Your task to perform on an android device: turn on improve location accuracy Image 0: 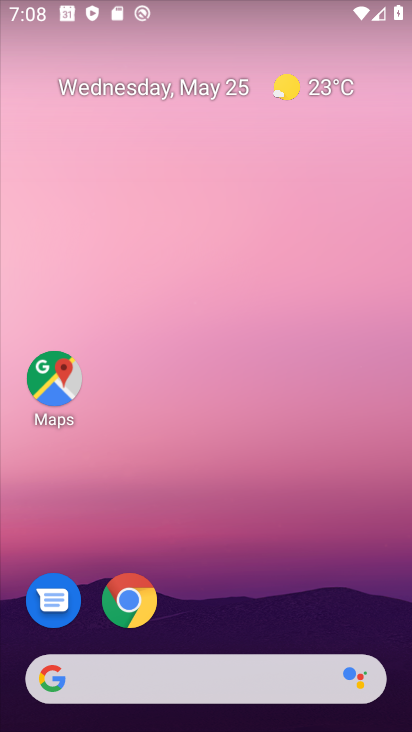
Step 0: drag from (230, 585) to (247, 214)
Your task to perform on an android device: turn on improve location accuracy Image 1: 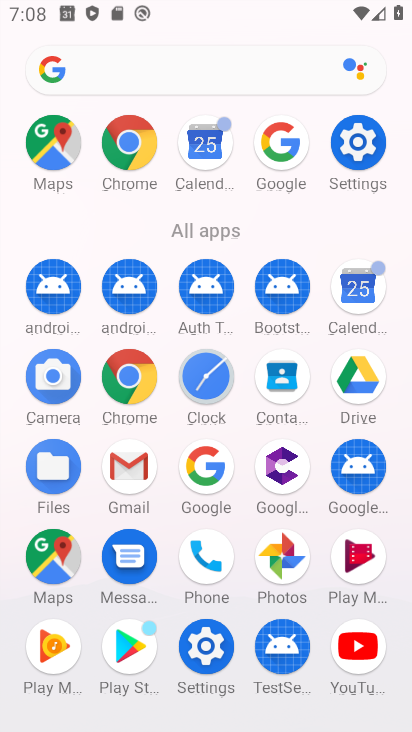
Step 1: click (360, 144)
Your task to perform on an android device: turn on improve location accuracy Image 2: 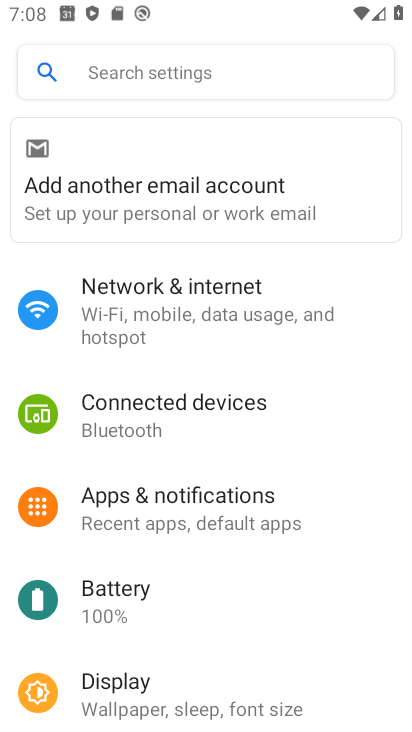
Step 2: drag from (144, 536) to (196, 445)
Your task to perform on an android device: turn on improve location accuracy Image 3: 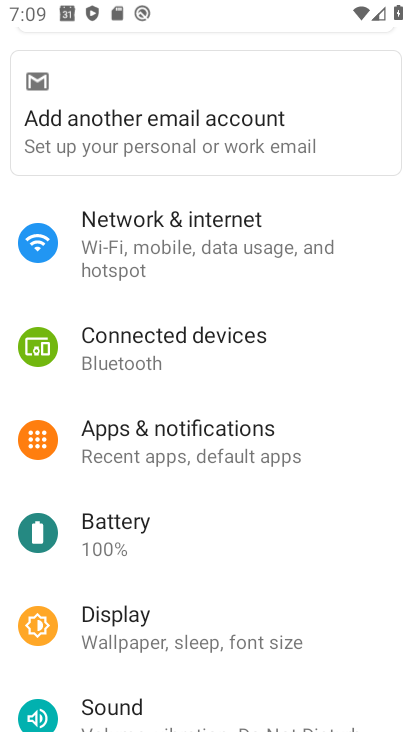
Step 3: drag from (146, 575) to (210, 482)
Your task to perform on an android device: turn on improve location accuracy Image 4: 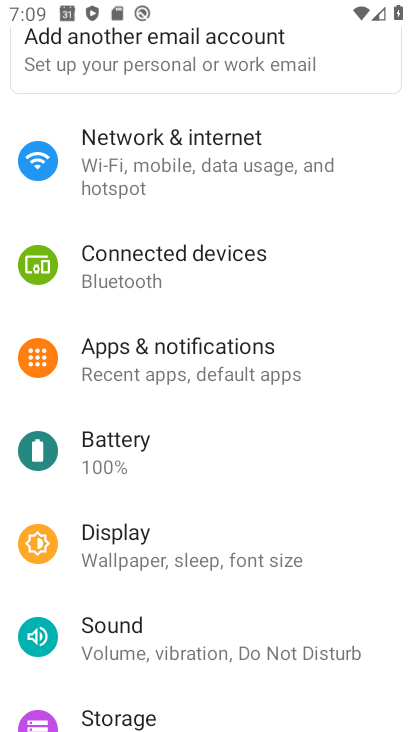
Step 4: drag from (142, 583) to (203, 499)
Your task to perform on an android device: turn on improve location accuracy Image 5: 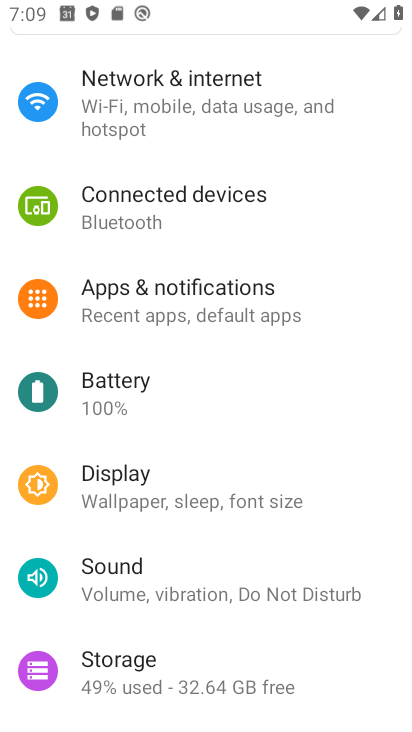
Step 5: drag from (112, 620) to (197, 522)
Your task to perform on an android device: turn on improve location accuracy Image 6: 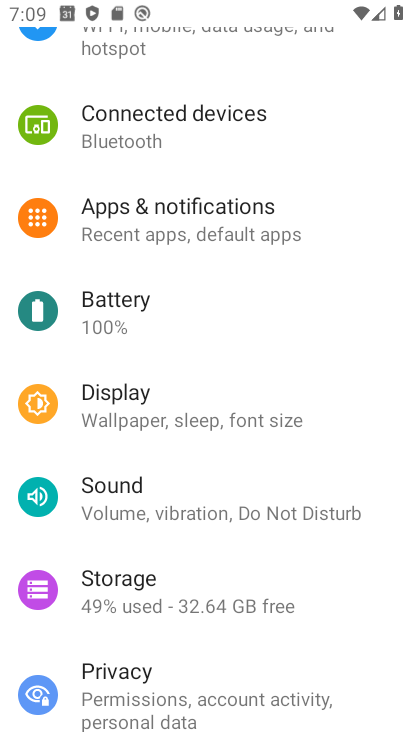
Step 6: drag from (124, 556) to (199, 475)
Your task to perform on an android device: turn on improve location accuracy Image 7: 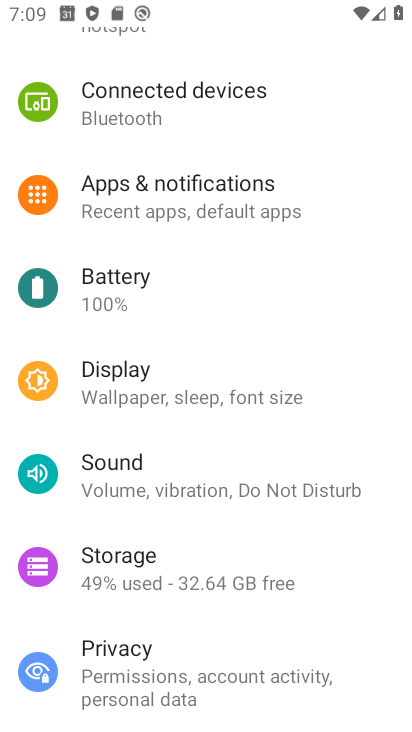
Step 7: drag from (109, 607) to (209, 498)
Your task to perform on an android device: turn on improve location accuracy Image 8: 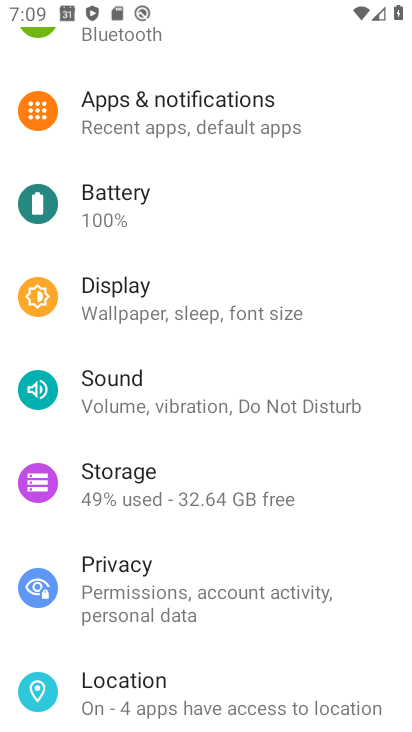
Step 8: drag from (73, 639) to (157, 506)
Your task to perform on an android device: turn on improve location accuracy Image 9: 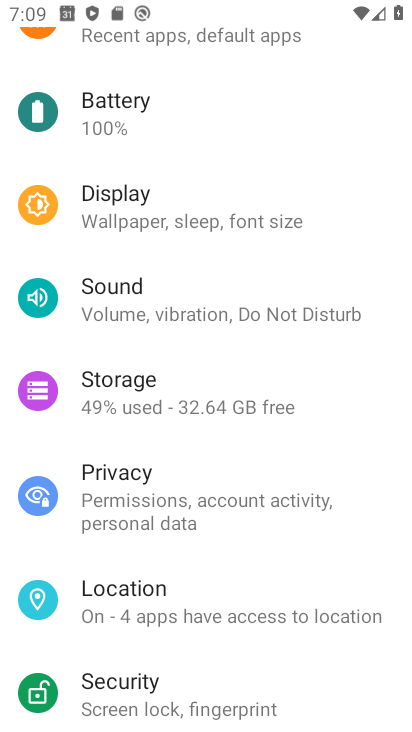
Step 9: click (116, 592)
Your task to perform on an android device: turn on improve location accuracy Image 10: 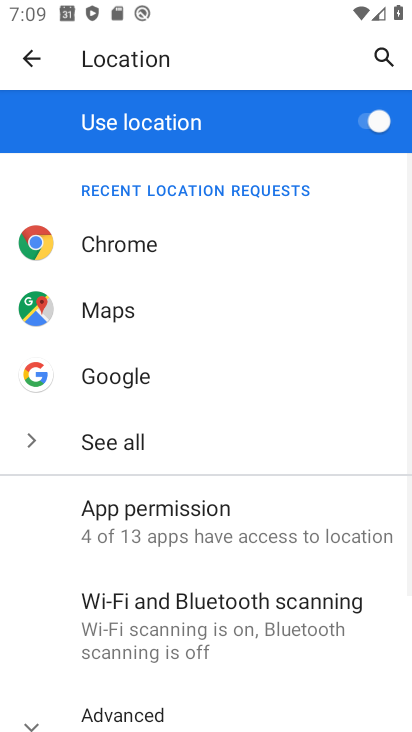
Step 10: drag from (188, 555) to (258, 440)
Your task to perform on an android device: turn on improve location accuracy Image 11: 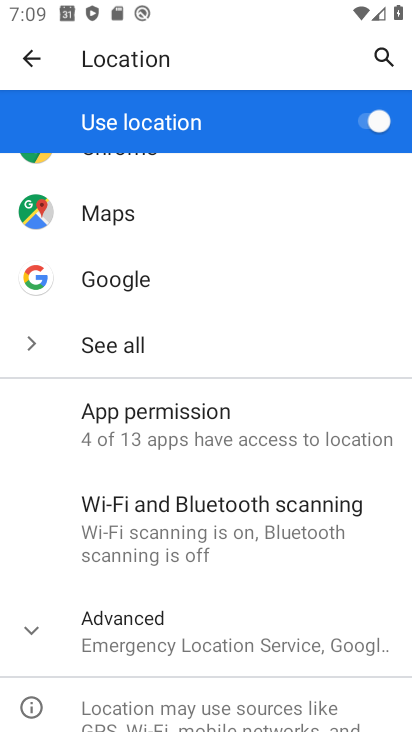
Step 11: click (191, 638)
Your task to perform on an android device: turn on improve location accuracy Image 12: 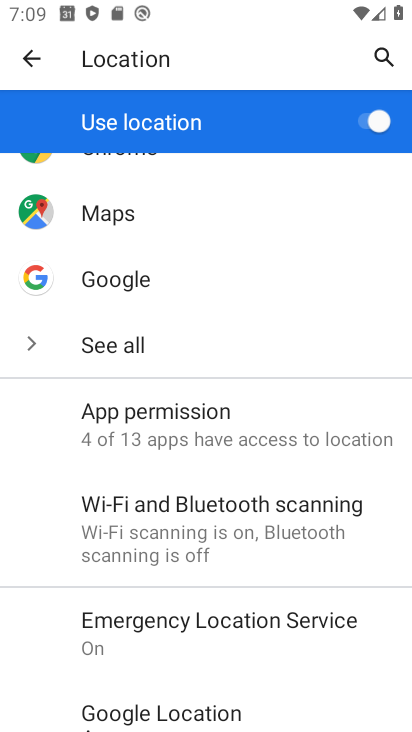
Step 12: drag from (173, 669) to (202, 552)
Your task to perform on an android device: turn on improve location accuracy Image 13: 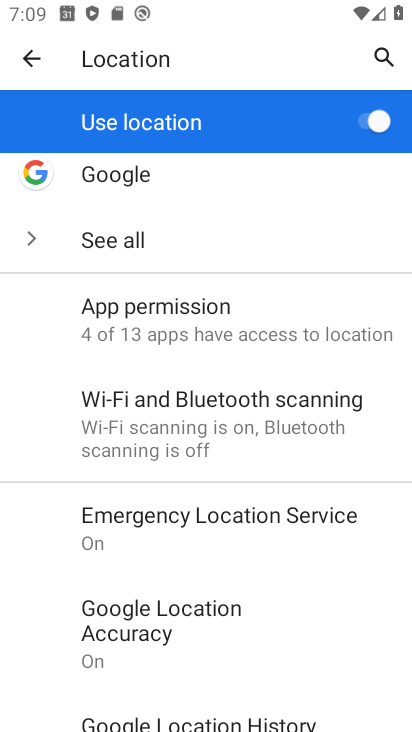
Step 13: click (154, 629)
Your task to perform on an android device: turn on improve location accuracy Image 14: 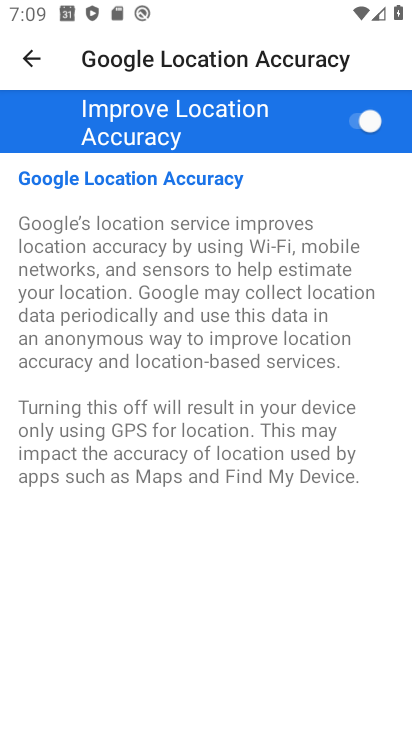
Step 14: task complete